Your task to perform on an android device: move an email to a new category in the gmail app Image 0: 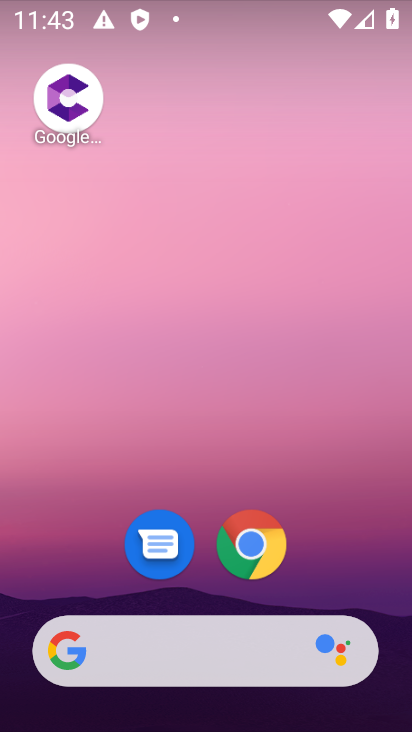
Step 0: drag from (326, 534) to (285, 1)
Your task to perform on an android device: move an email to a new category in the gmail app Image 1: 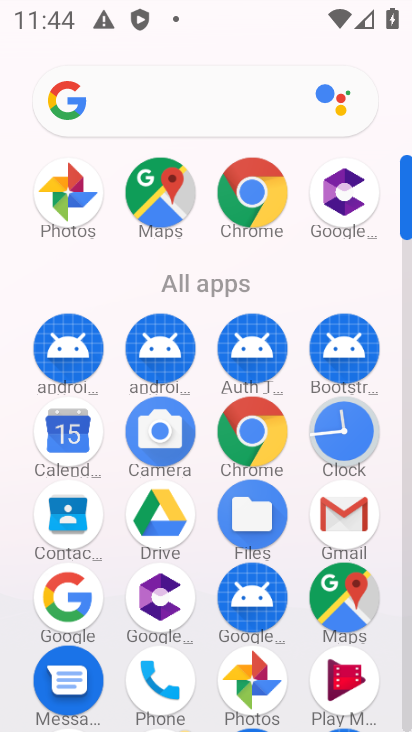
Step 1: click (357, 500)
Your task to perform on an android device: move an email to a new category in the gmail app Image 2: 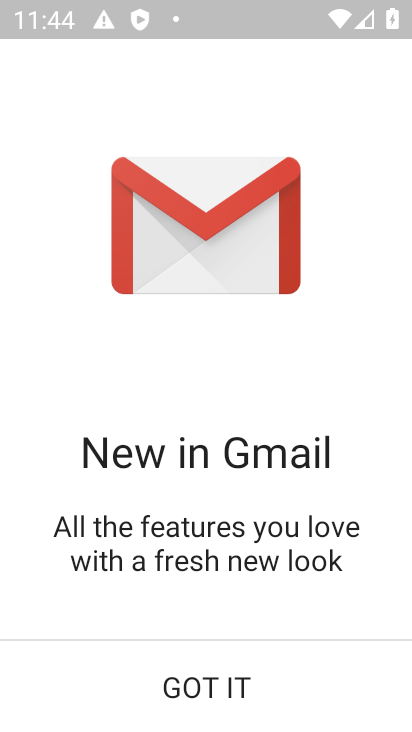
Step 2: click (180, 657)
Your task to perform on an android device: move an email to a new category in the gmail app Image 3: 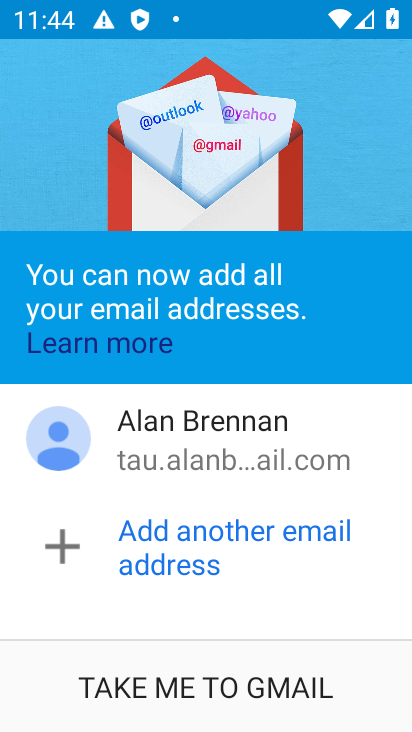
Step 3: click (213, 685)
Your task to perform on an android device: move an email to a new category in the gmail app Image 4: 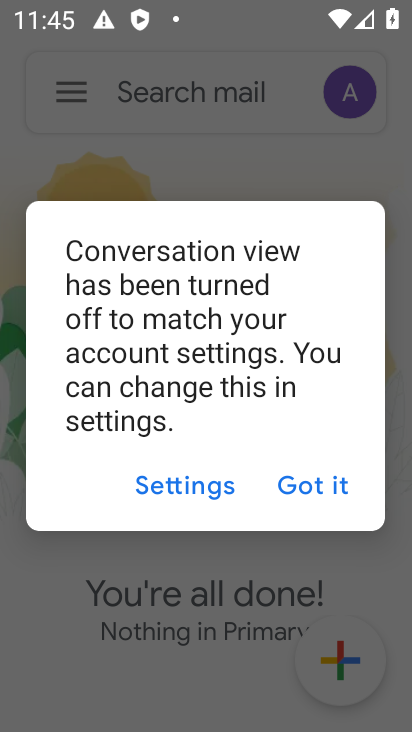
Step 4: click (338, 475)
Your task to perform on an android device: move an email to a new category in the gmail app Image 5: 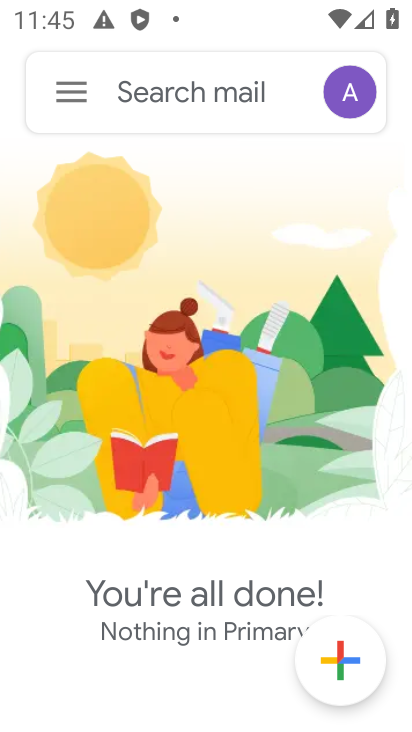
Step 5: click (59, 76)
Your task to perform on an android device: move an email to a new category in the gmail app Image 6: 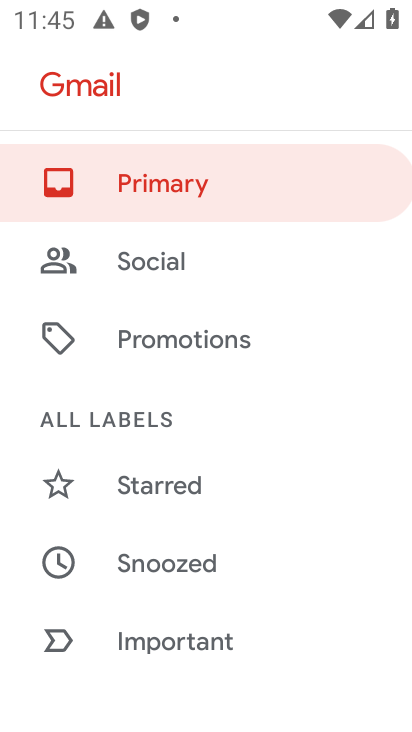
Step 6: drag from (256, 625) to (297, 117)
Your task to perform on an android device: move an email to a new category in the gmail app Image 7: 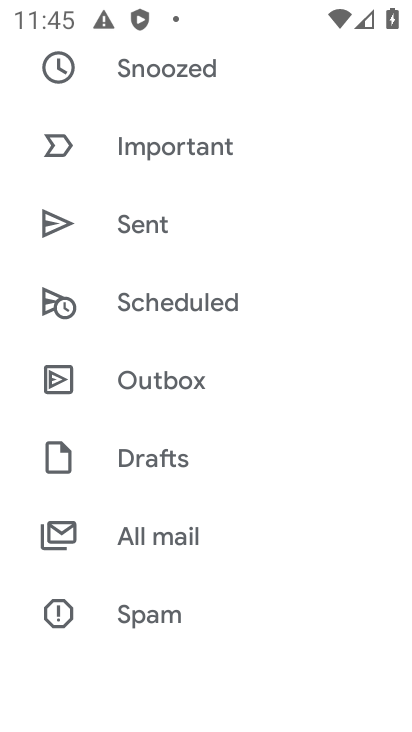
Step 7: drag from (261, 568) to (315, 146)
Your task to perform on an android device: move an email to a new category in the gmail app Image 8: 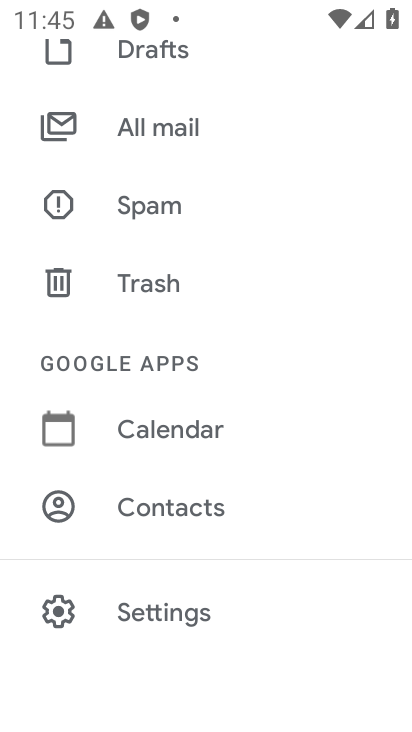
Step 8: click (179, 605)
Your task to perform on an android device: move an email to a new category in the gmail app Image 9: 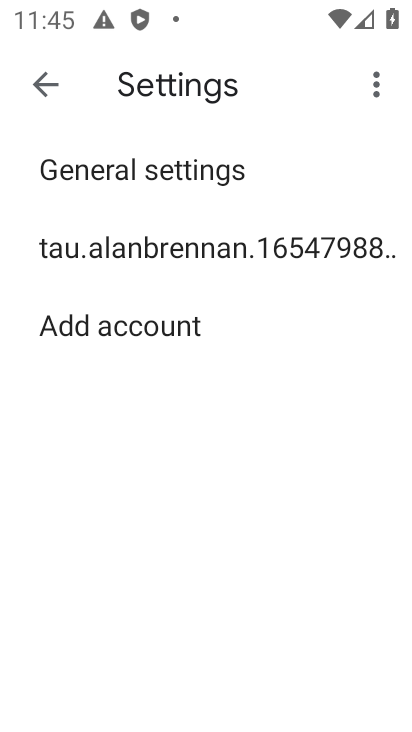
Step 9: click (264, 250)
Your task to perform on an android device: move an email to a new category in the gmail app Image 10: 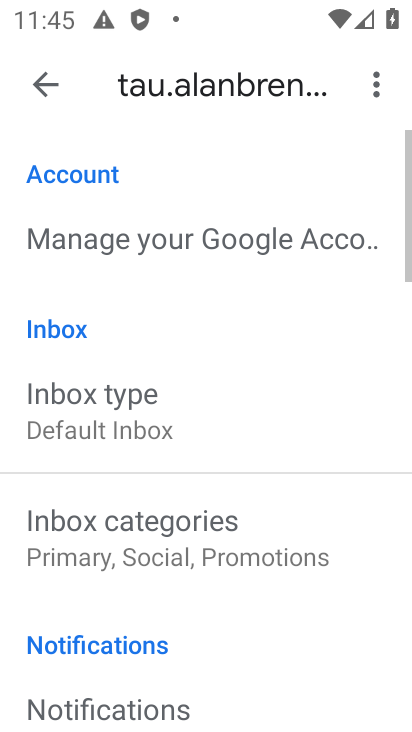
Step 10: drag from (283, 599) to (333, 128)
Your task to perform on an android device: move an email to a new category in the gmail app Image 11: 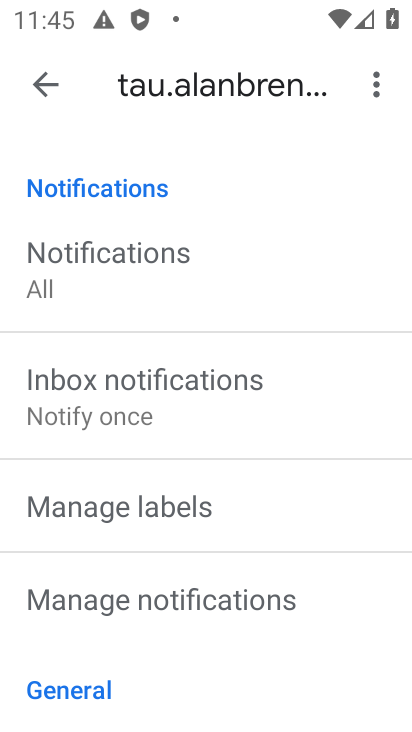
Step 11: click (201, 511)
Your task to perform on an android device: move an email to a new category in the gmail app Image 12: 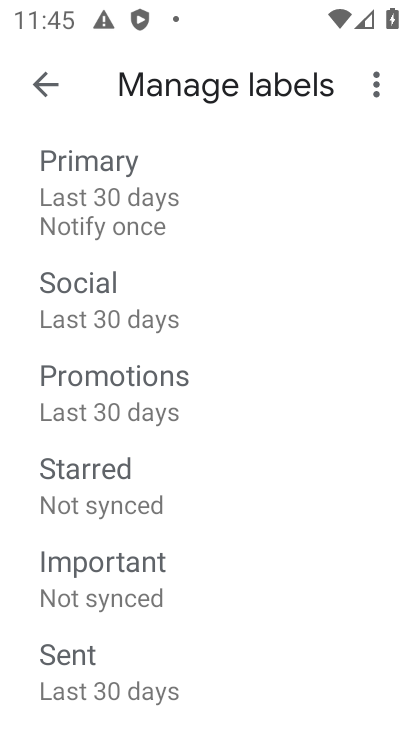
Step 12: click (387, 71)
Your task to perform on an android device: move an email to a new category in the gmail app Image 13: 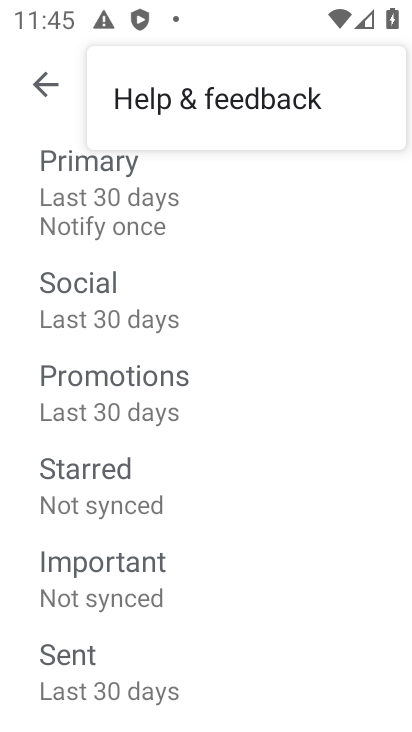
Step 13: task complete